Your task to perform on an android device: open sync settings in chrome Image 0: 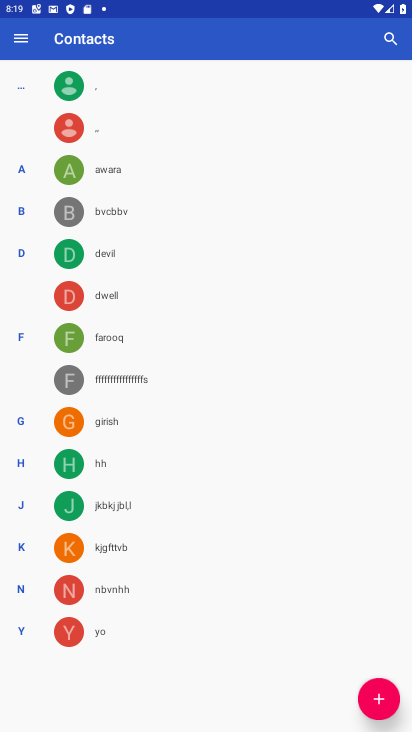
Step 0: press home button
Your task to perform on an android device: open sync settings in chrome Image 1: 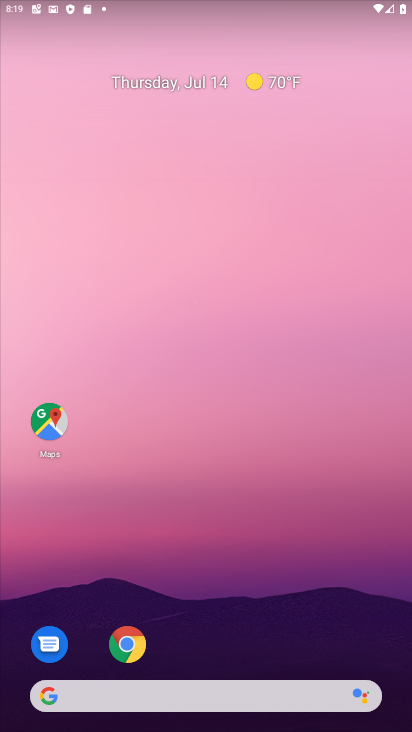
Step 1: drag from (272, 638) to (278, 122)
Your task to perform on an android device: open sync settings in chrome Image 2: 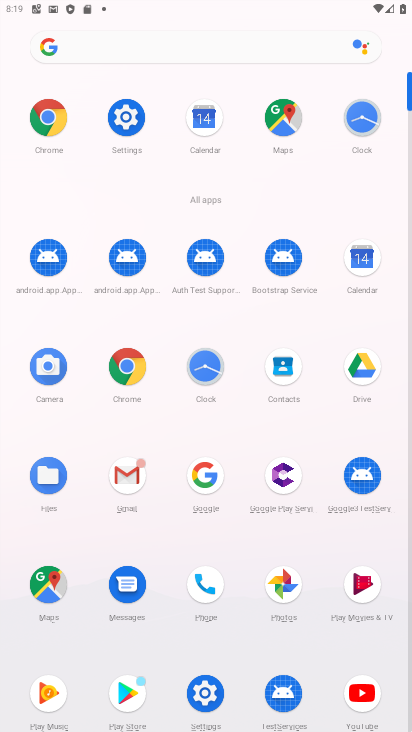
Step 2: click (51, 110)
Your task to perform on an android device: open sync settings in chrome Image 3: 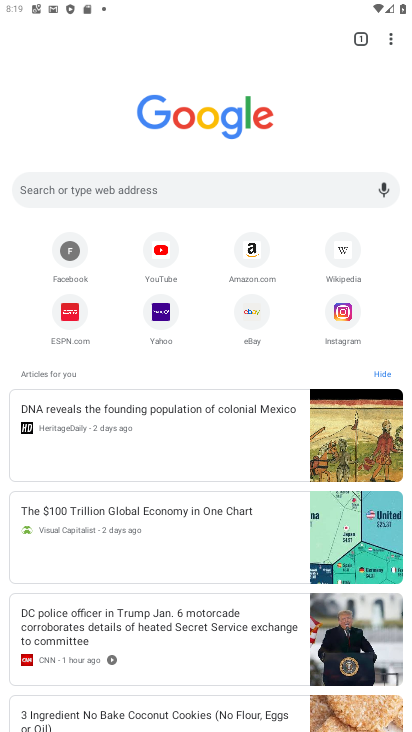
Step 3: click (391, 37)
Your task to perform on an android device: open sync settings in chrome Image 4: 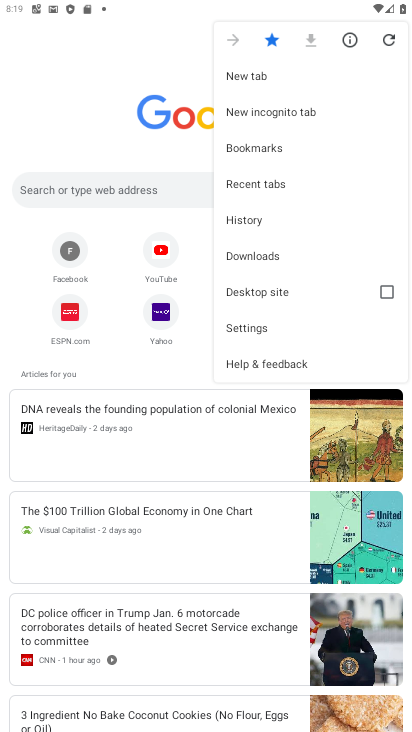
Step 4: click (270, 326)
Your task to perform on an android device: open sync settings in chrome Image 5: 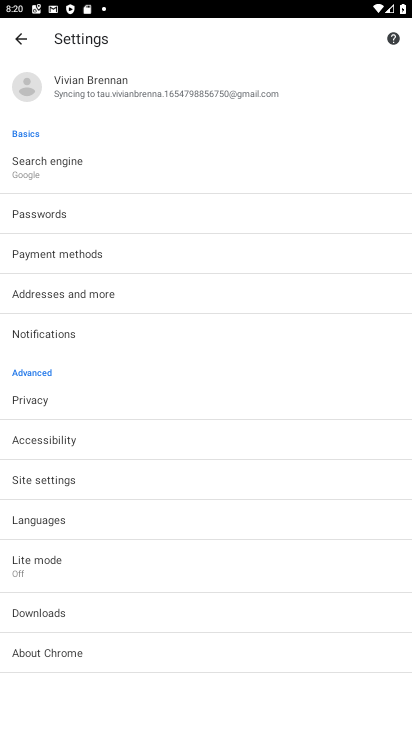
Step 5: click (103, 75)
Your task to perform on an android device: open sync settings in chrome Image 6: 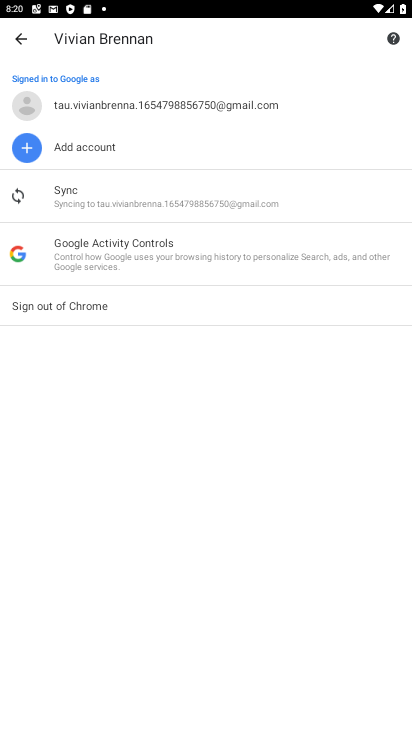
Step 6: click (90, 201)
Your task to perform on an android device: open sync settings in chrome Image 7: 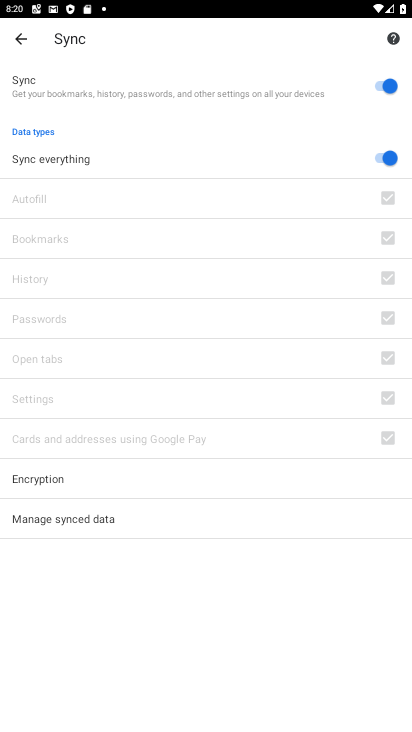
Step 7: task complete